Your task to perform on an android device: Open sound settings Image 0: 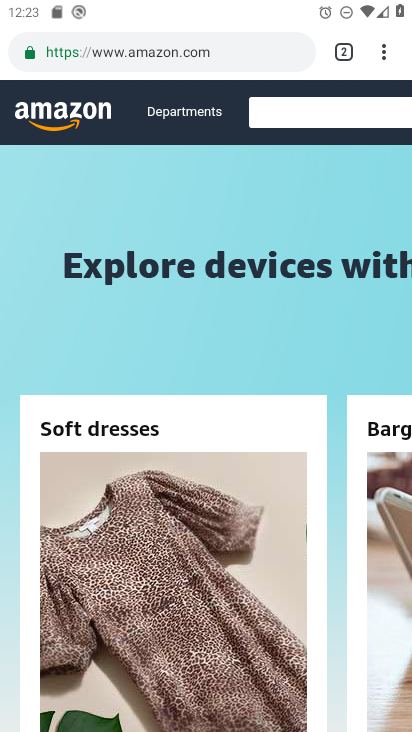
Step 0: press home button
Your task to perform on an android device: Open sound settings Image 1: 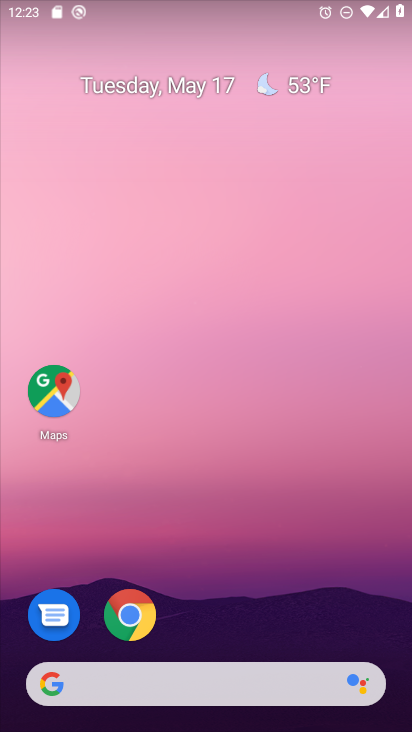
Step 1: drag from (201, 601) to (253, 307)
Your task to perform on an android device: Open sound settings Image 2: 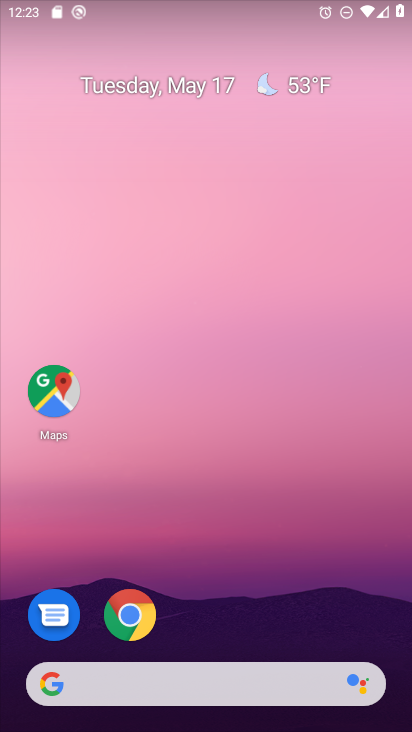
Step 2: drag from (257, 613) to (259, 256)
Your task to perform on an android device: Open sound settings Image 3: 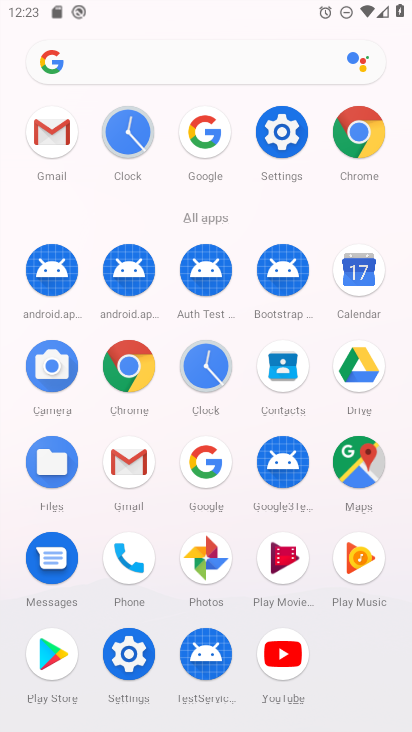
Step 3: click (266, 137)
Your task to perform on an android device: Open sound settings Image 4: 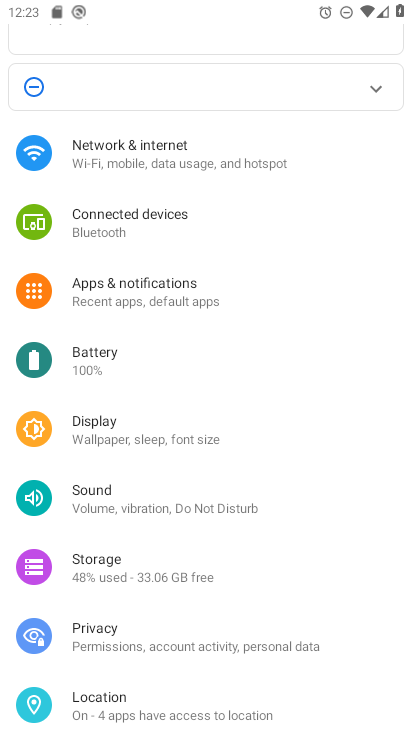
Step 4: click (119, 511)
Your task to perform on an android device: Open sound settings Image 5: 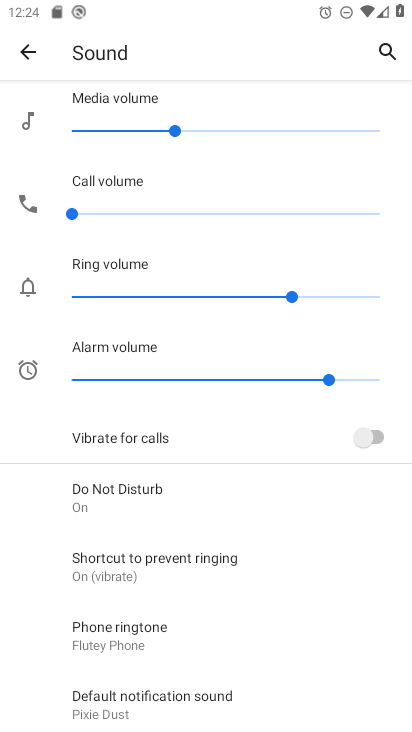
Step 5: drag from (186, 695) to (269, 260)
Your task to perform on an android device: Open sound settings Image 6: 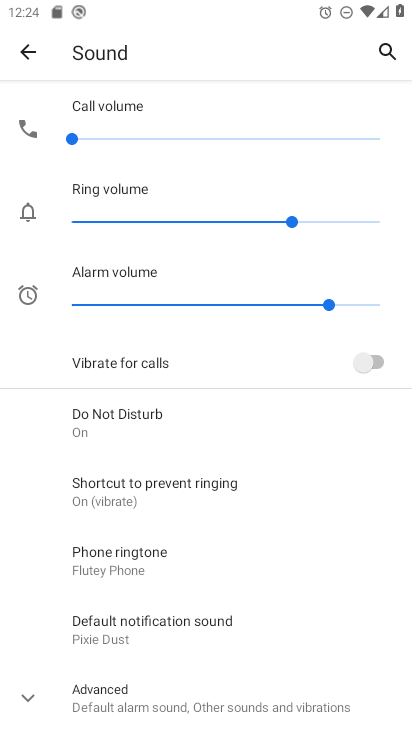
Step 6: click (150, 695)
Your task to perform on an android device: Open sound settings Image 7: 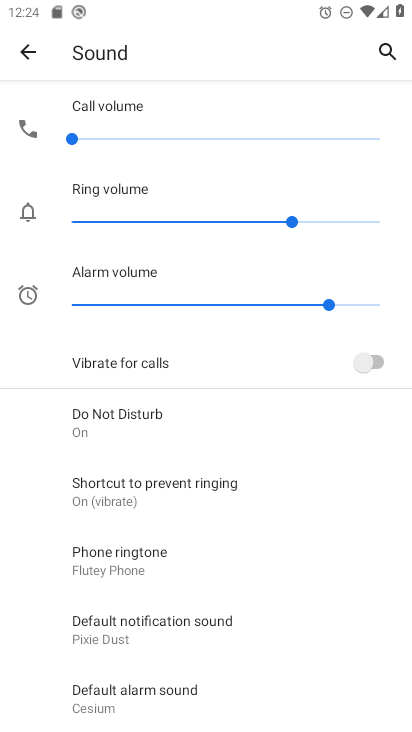
Step 7: task complete